Your task to perform on an android device: See recent photos Image 0: 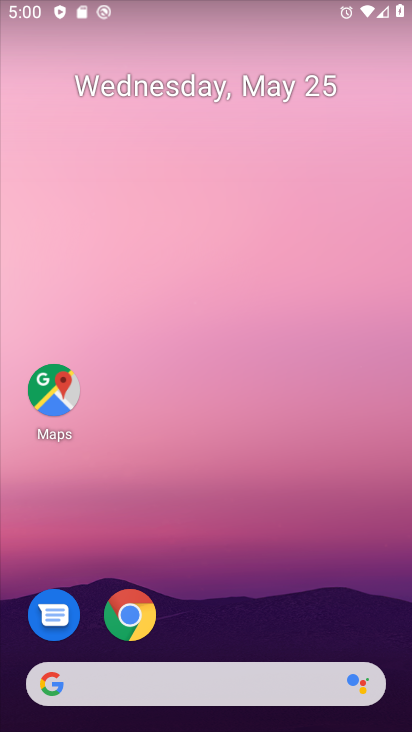
Step 0: drag from (218, 580) to (206, 14)
Your task to perform on an android device: See recent photos Image 1: 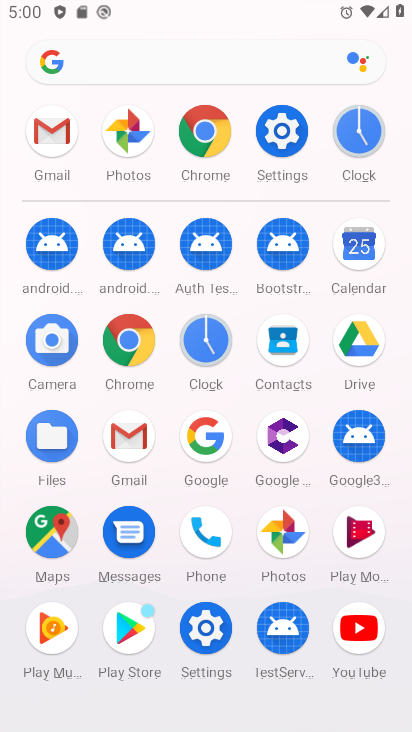
Step 1: click (302, 547)
Your task to perform on an android device: See recent photos Image 2: 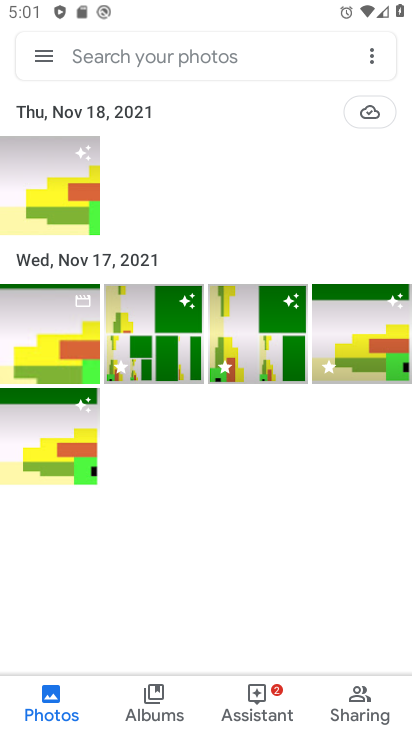
Step 2: task complete